Your task to perform on an android device: empty trash in google photos Image 0: 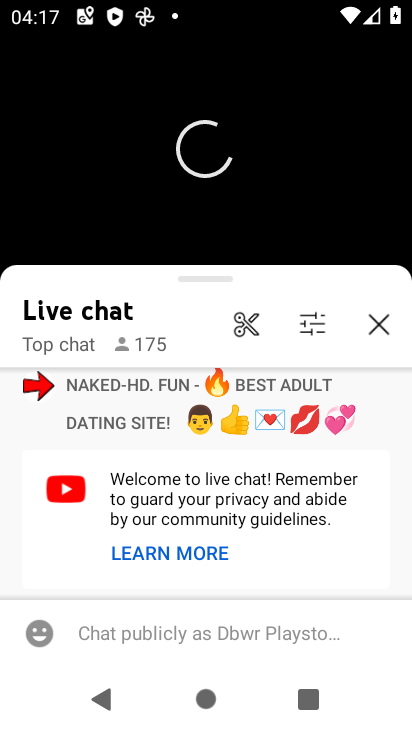
Step 0: press home button
Your task to perform on an android device: empty trash in google photos Image 1: 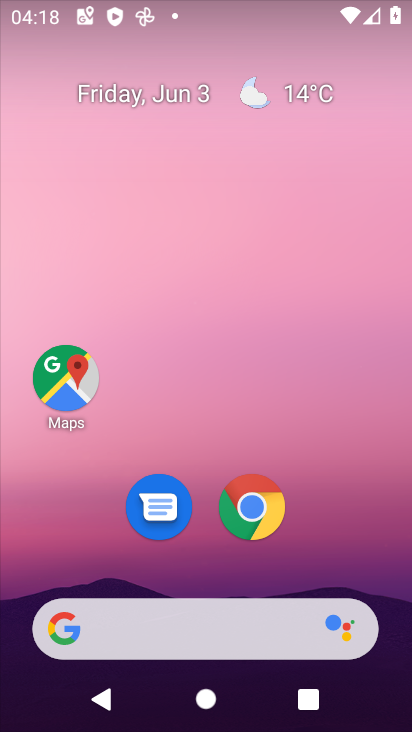
Step 1: drag from (306, 551) to (273, 186)
Your task to perform on an android device: empty trash in google photos Image 2: 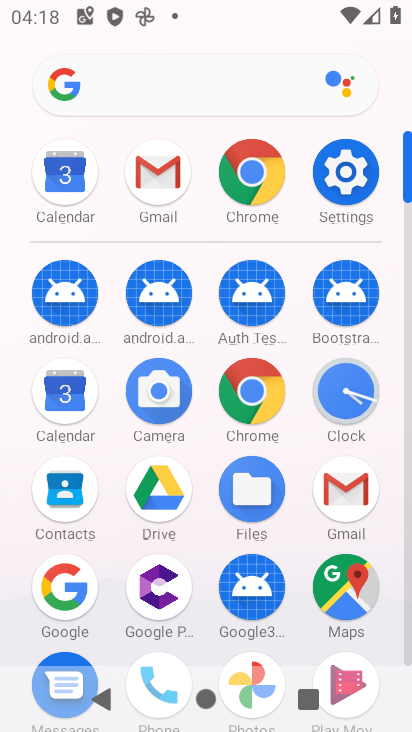
Step 2: drag from (384, 540) to (302, 142)
Your task to perform on an android device: empty trash in google photos Image 3: 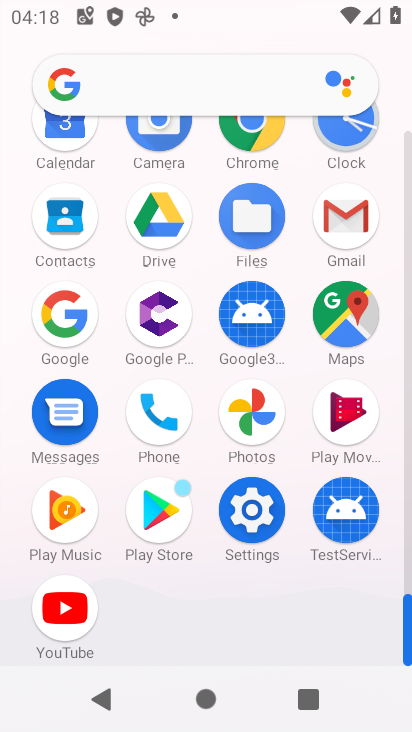
Step 3: click (255, 415)
Your task to perform on an android device: empty trash in google photos Image 4: 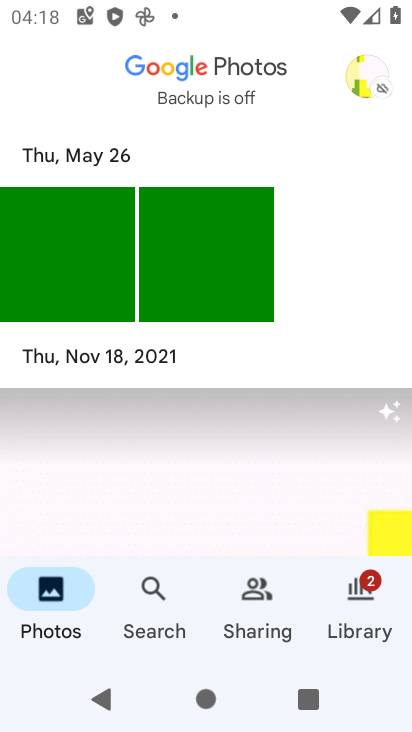
Step 4: click (371, 603)
Your task to perform on an android device: empty trash in google photos Image 5: 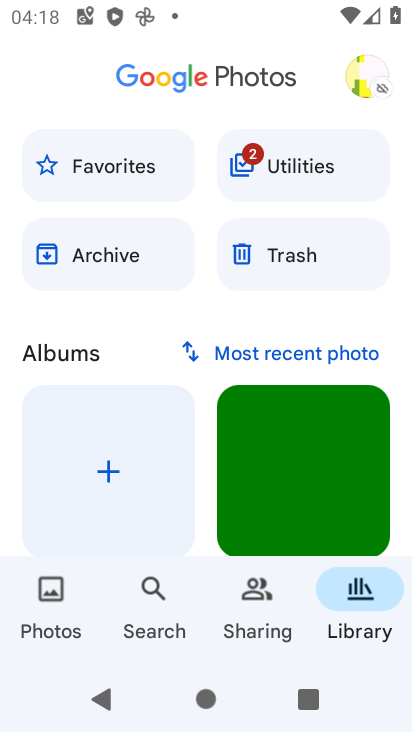
Step 5: click (237, 258)
Your task to perform on an android device: empty trash in google photos Image 6: 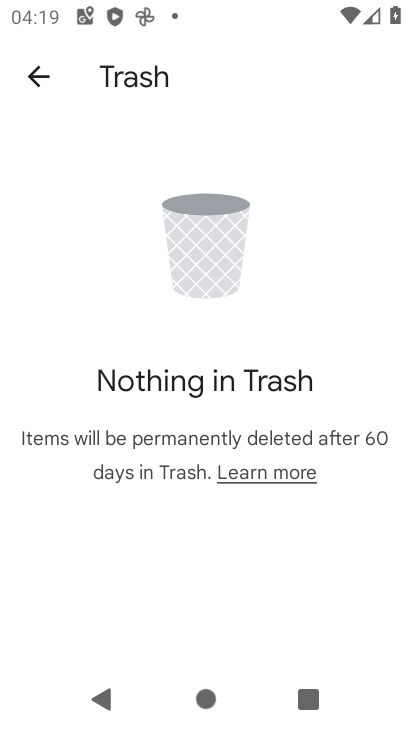
Step 6: task complete